Your task to perform on an android device: Go to battery settings Image 0: 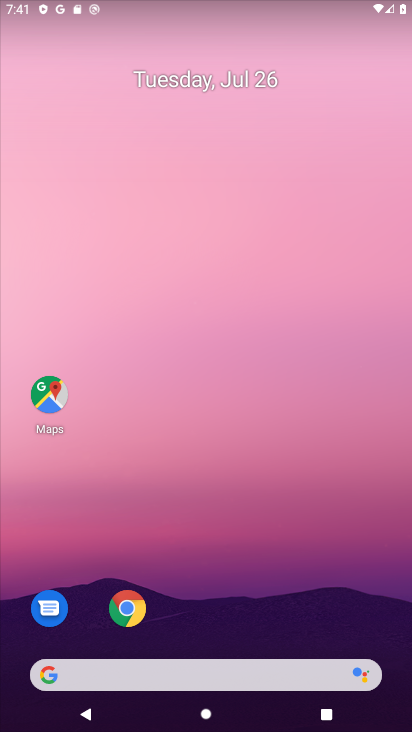
Step 0: drag from (239, 538) to (168, 0)
Your task to perform on an android device: Go to battery settings Image 1: 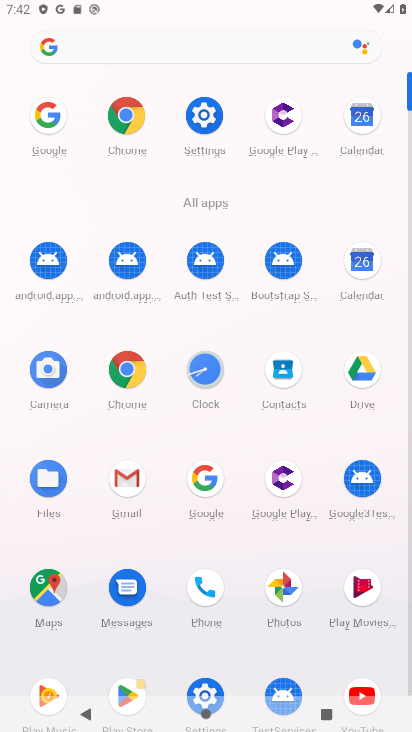
Step 1: click (203, 112)
Your task to perform on an android device: Go to battery settings Image 2: 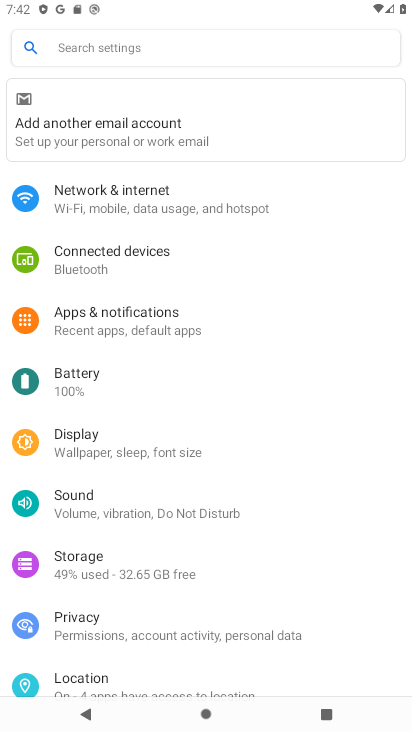
Step 2: click (68, 384)
Your task to perform on an android device: Go to battery settings Image 3: 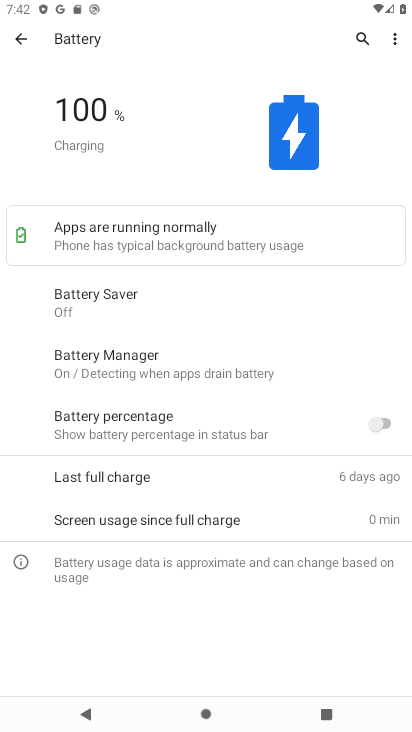
Step 3: task complete